Your task to perform on an android device: change timer sound Image 0: 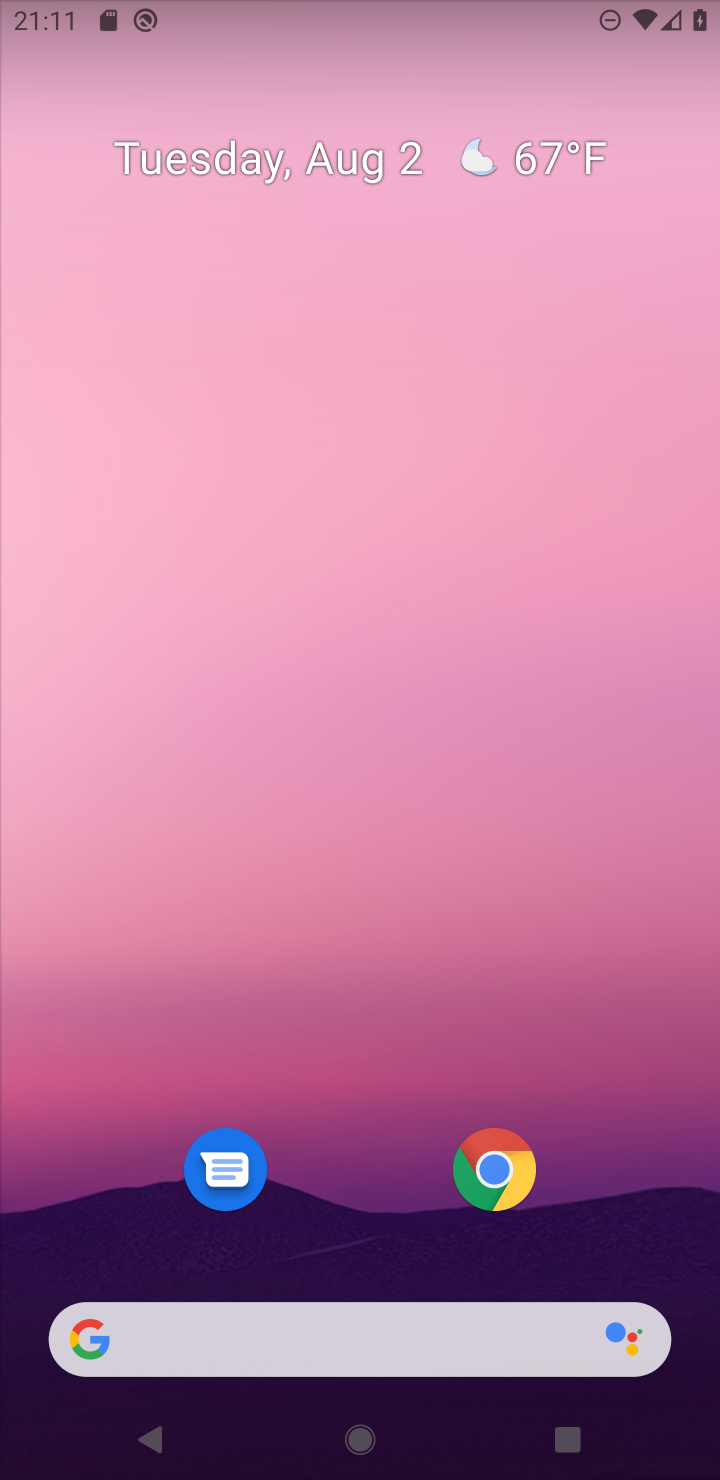
Step 0: press home button
Your task to perform on an android device: change timer sound Image 1: 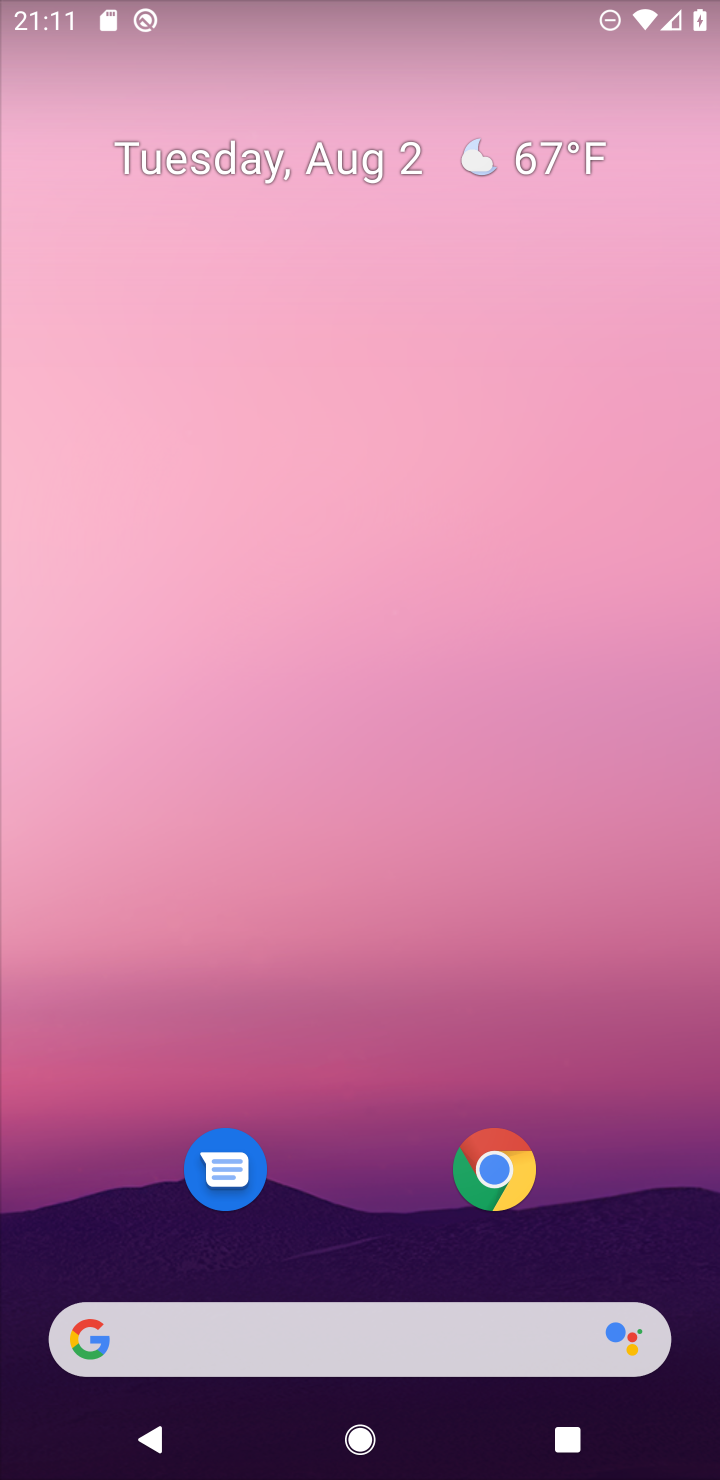
Step 1: drag from (347, 1262) to (347, 23)
Your task to perform on an android device: change timer sound Image 2: 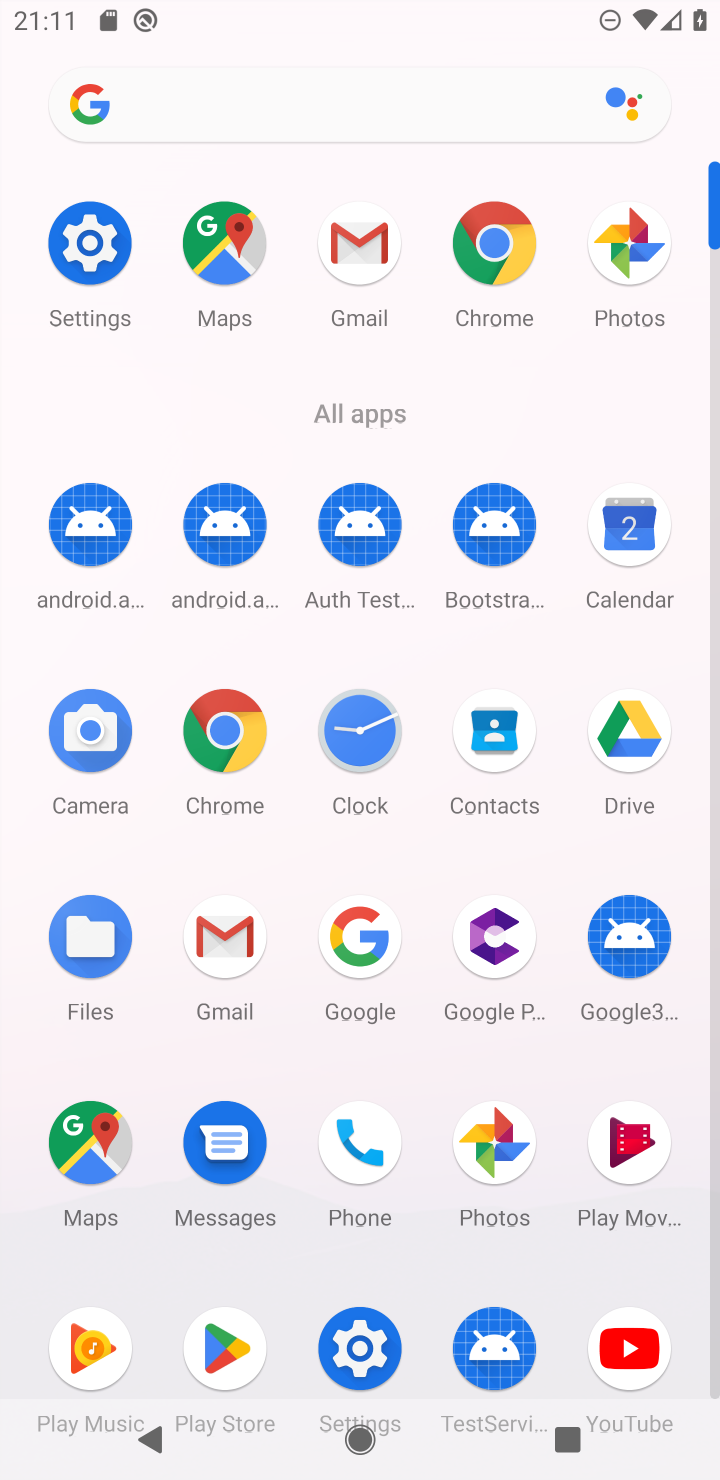
Step 2: click (363, 727)
Your task to perform on an android device: change timer sound Image 3: 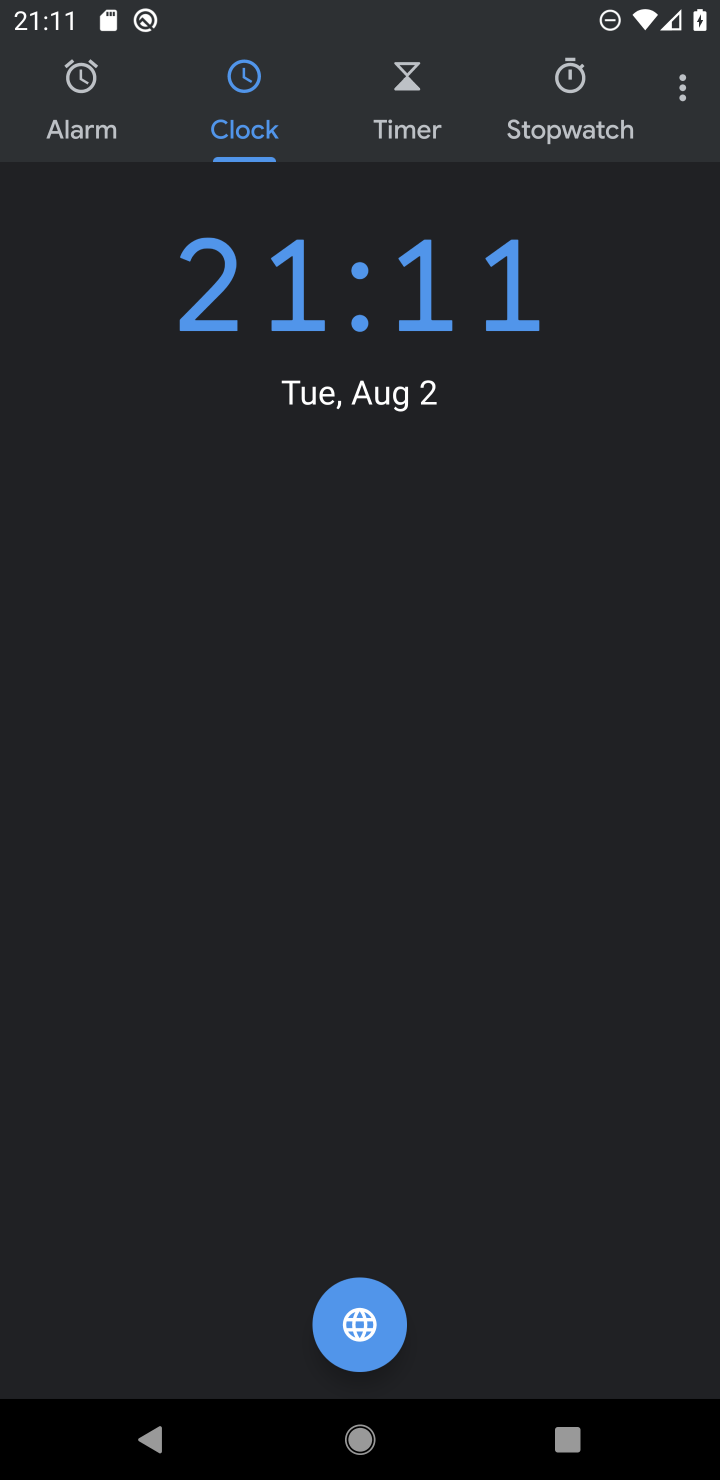
Step 3: click (681, 101)
Your task to perform on an android device: change timer sound Image 4: 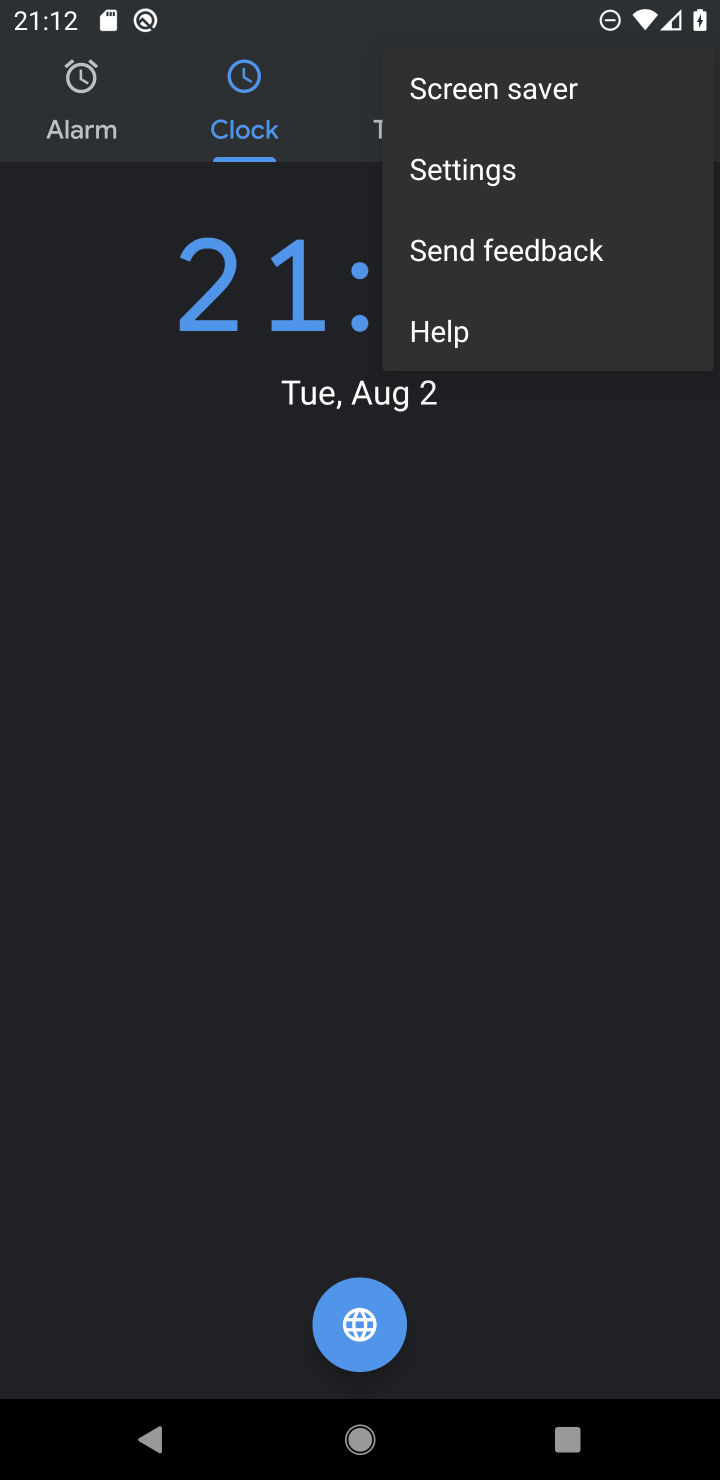
Step 4: click (433, 171)
Your task to perform on an android device: change timer sound Image 5: 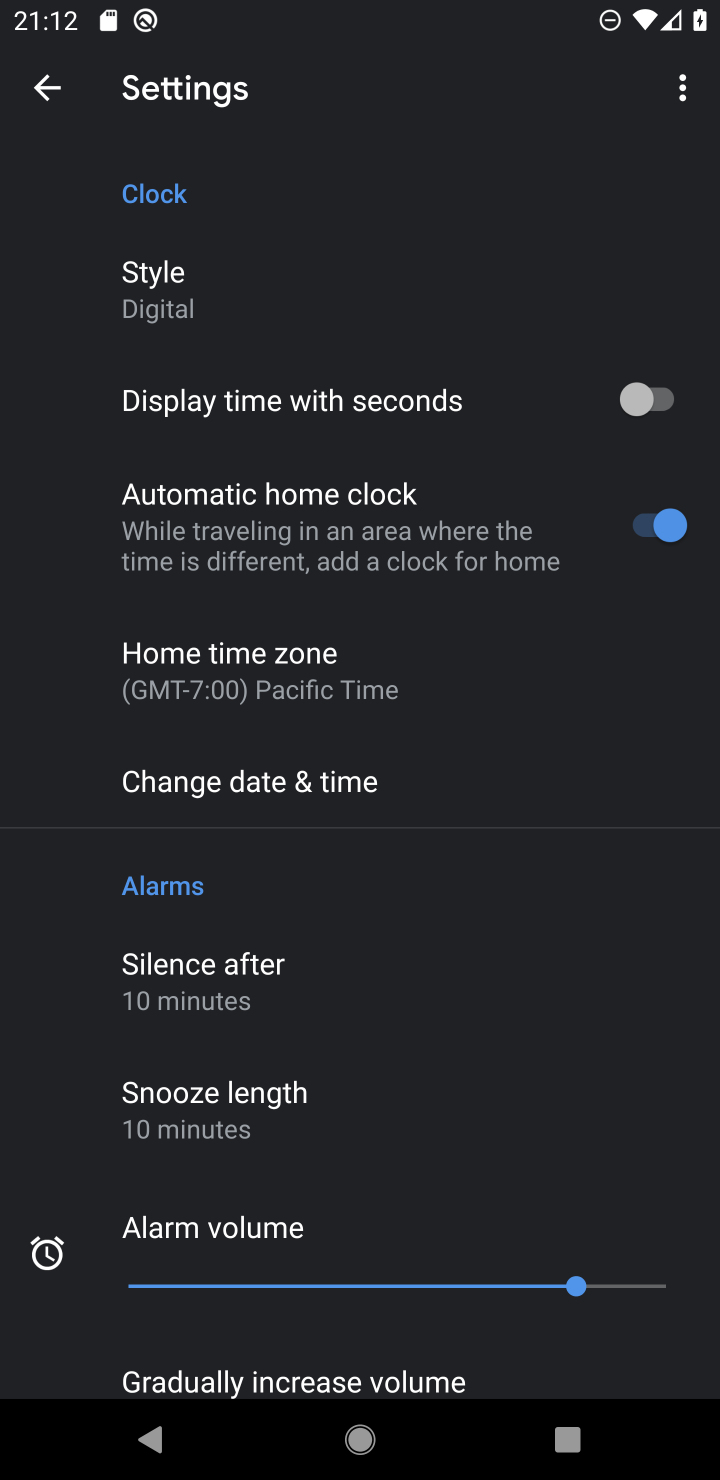
Step 5: drag from (450, 1000) to (446, 357)
Your task to perform on an android device: change timer sound Image 6: 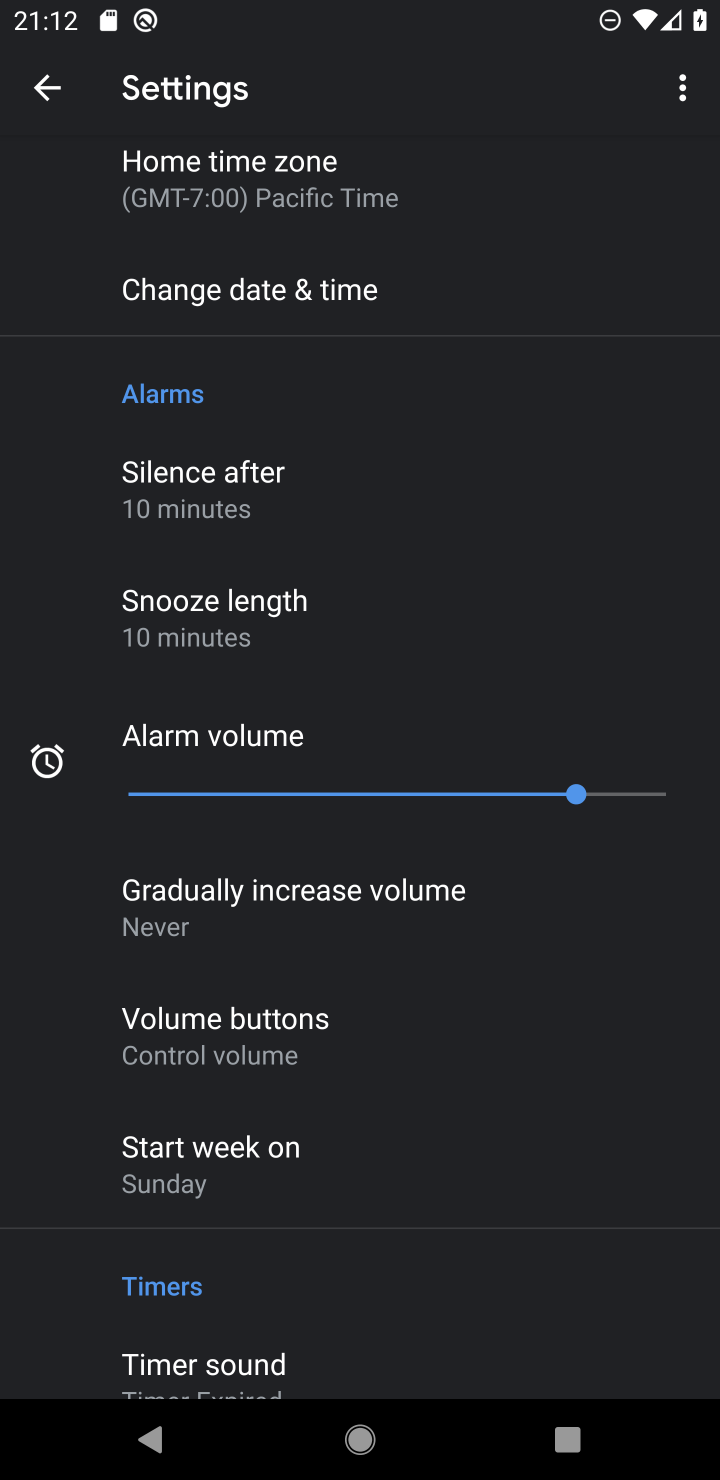
Step 6: click (260, 1356)
Your task to perform on an android device: change timer sound Image 7: 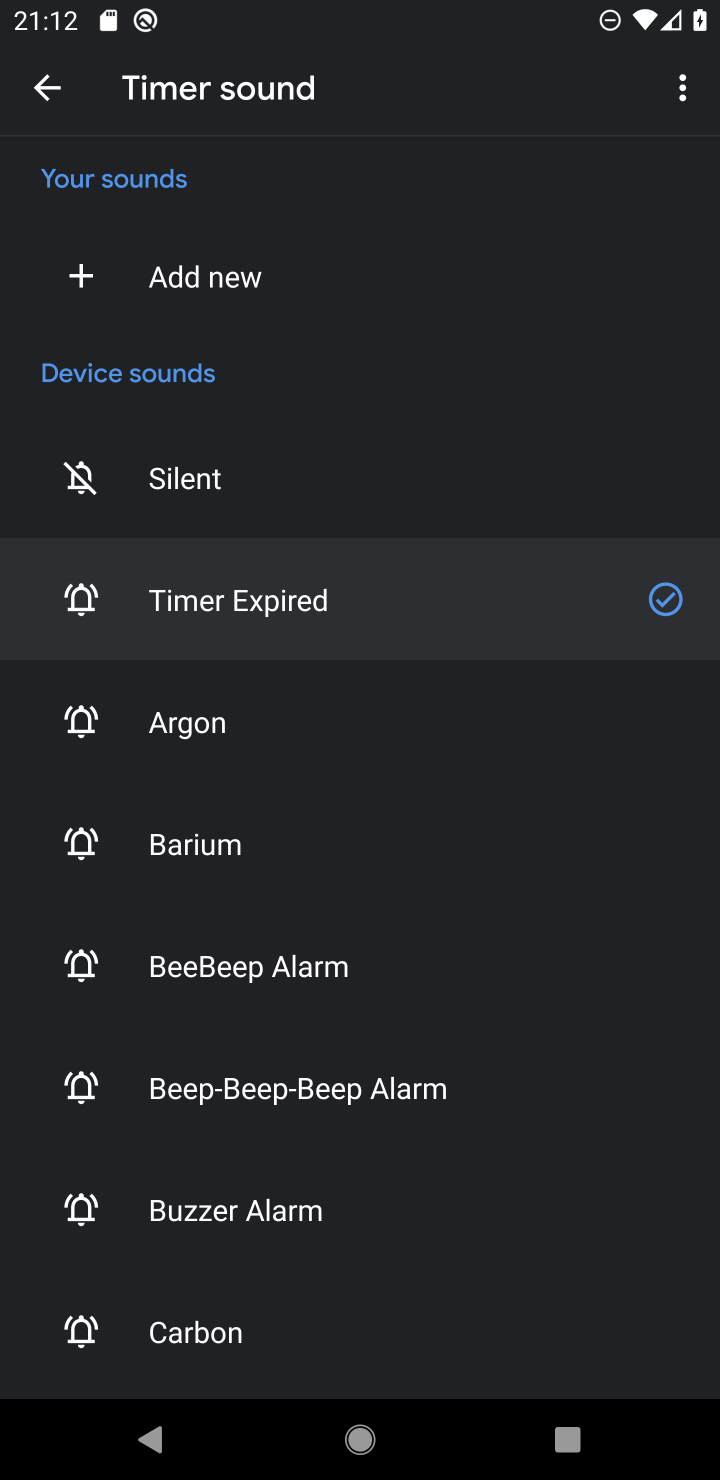
Step 7: click (219, 973)
Your task to perform on an android device: change timer sound Image 8: 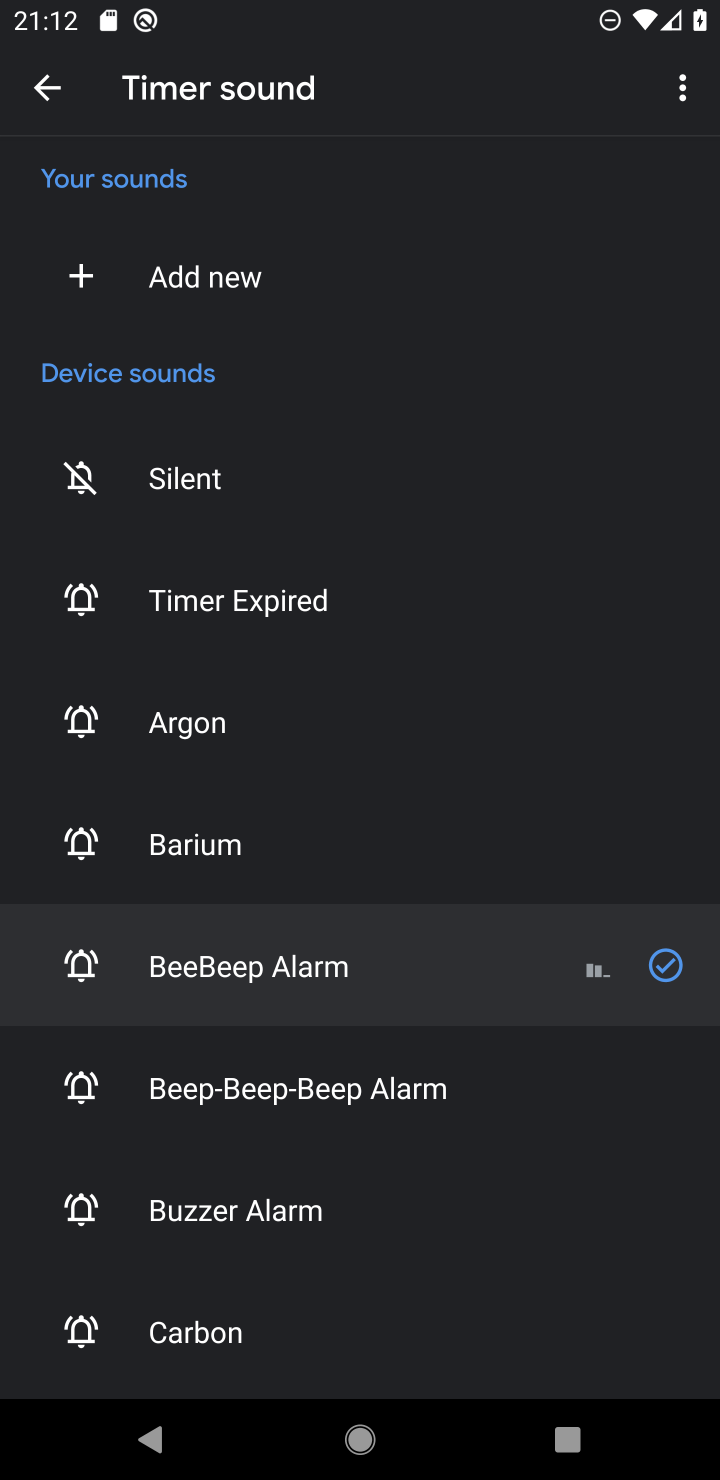
Step 8: task complete